Your task to perform on an android device: toggle airplane mode Image 0: 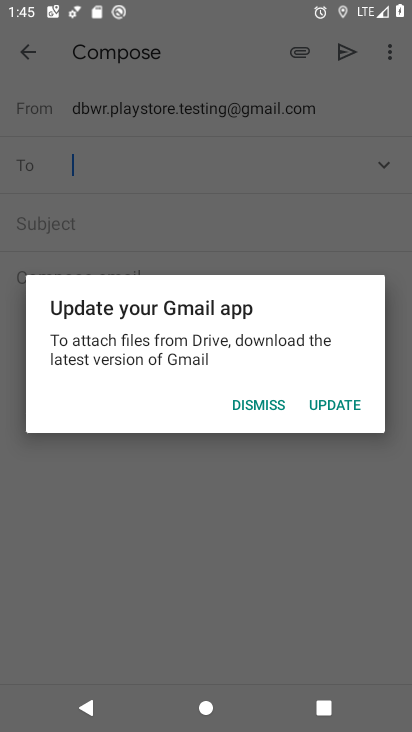
Step 0: press home button
Your task to perform on an android device: toggle airplane mode Image 1: 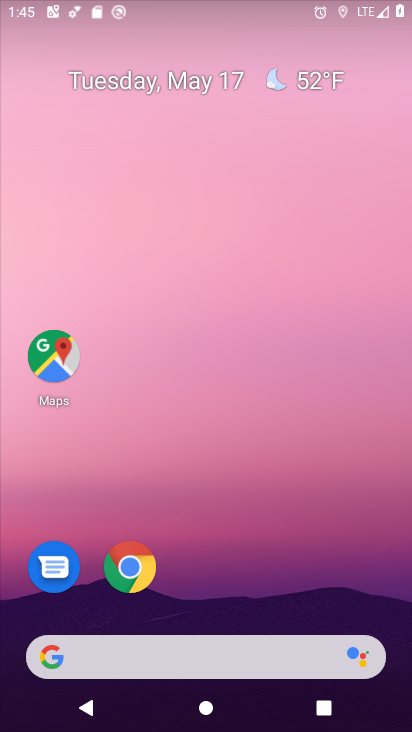
Step 1: drag from (259, 587) to (334, 24)
Your task to perform on an android device: toggle airplane mode Image 2: 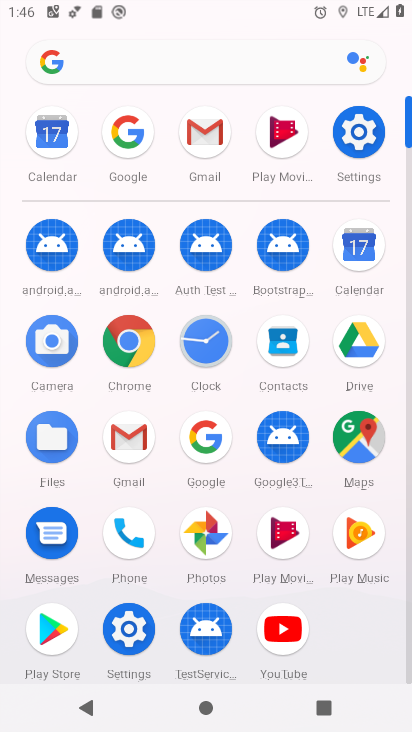
Step 2: click (349, 153)
Your task to perform on an android device: toggle airplane mode Image 3: 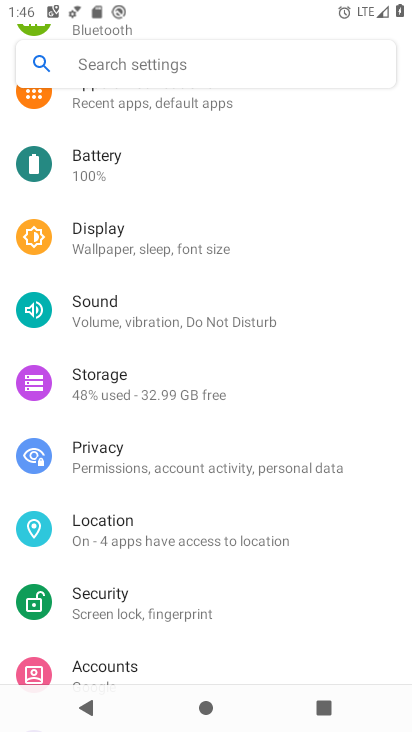
Step 3: drag from (157, 217) to (157, 560)
Your task to perform on an android device: toggle airplane mode Image 4: 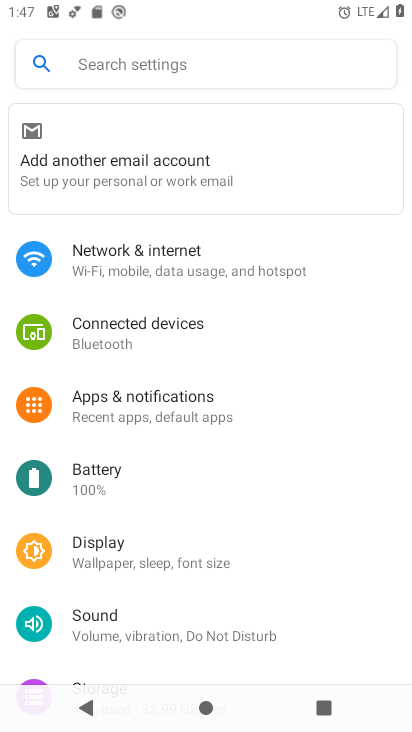
Step 4: click (129, 275)
Your task to perform on an android device: toggle airplane mode Image 5: 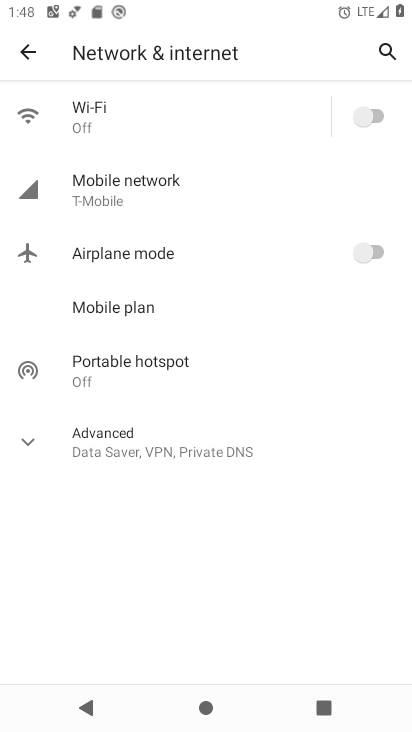
Step 5: click (373, 254)
Your task to perform on an android device: toggle airplane mode Image 6: 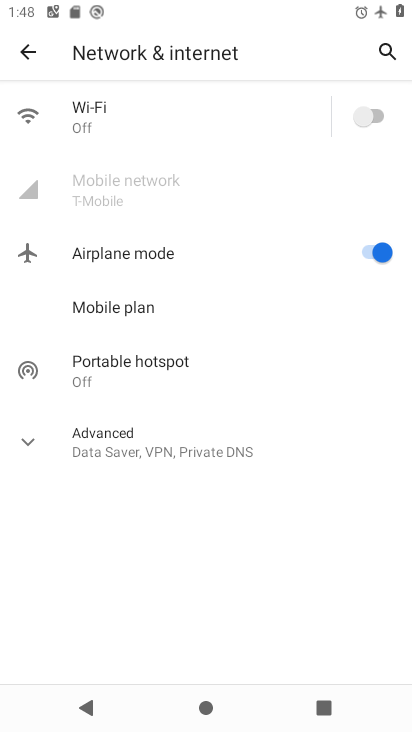
Step 6: task complete